Your task to perform on an android device: When is my next appointment? Image 0: 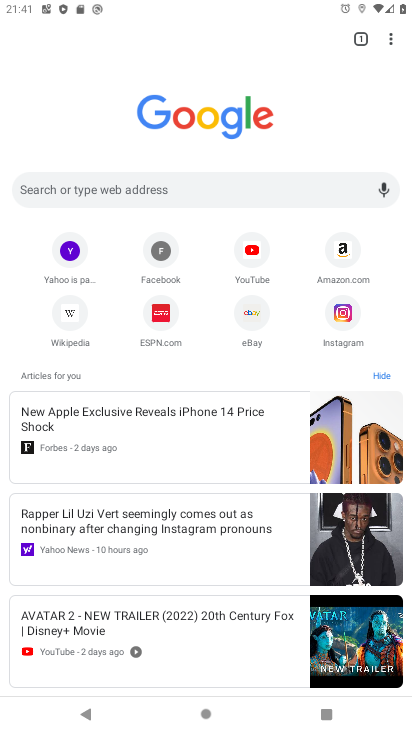
Step 0: press home button
Your task to perform on an android device: When is my next appointment? Image 1: 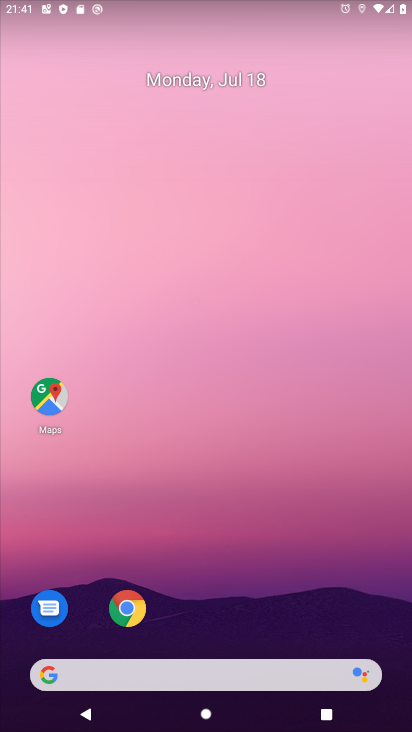
Step 1: drag from (82, 582) to (242, 206)
Your task to perform on an android device: When is my next appointment? Image 2: 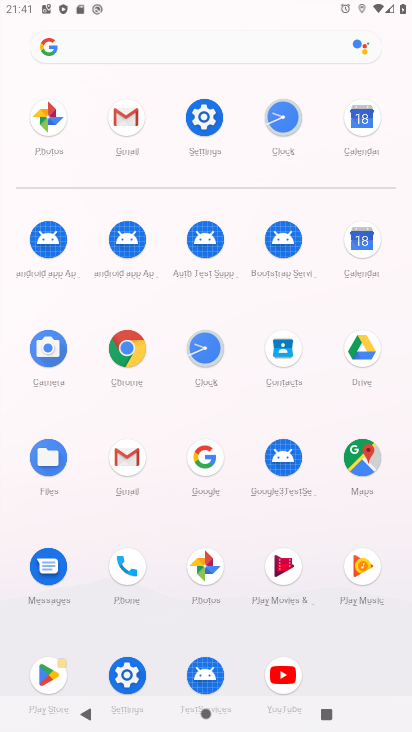
Step 2: click (359, 246)
Your task to perform on an android device: When is my next appointment? Image 3: 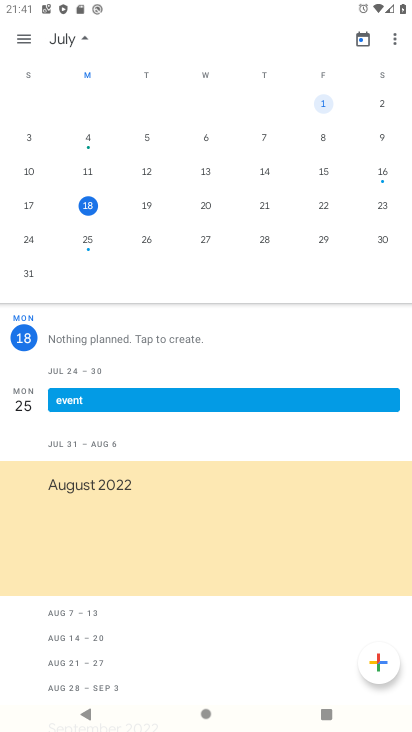
Step 3: task complete